Your task to perform on an android device: open app "Facebook" Image 0: 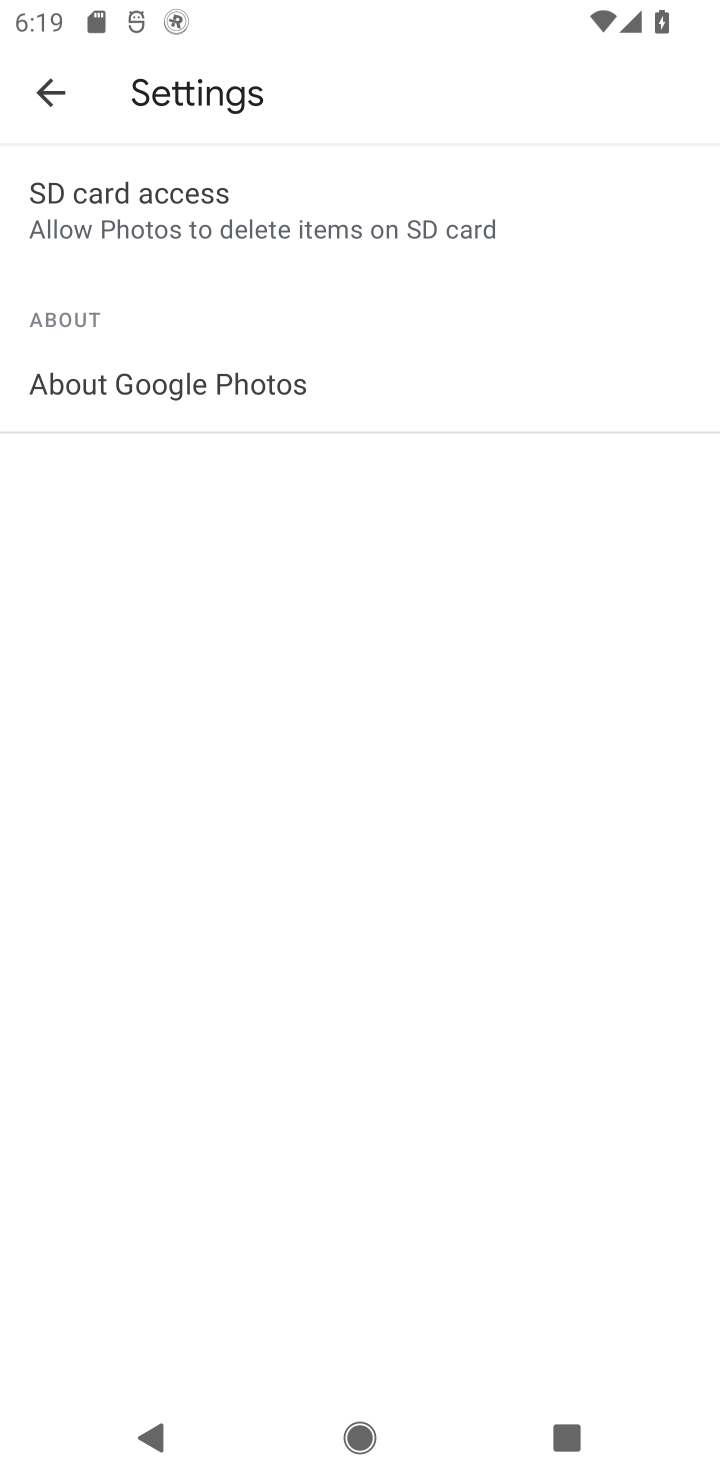
Step 0: press home button
Your task to perform on an android device: open app "Facebook" Image 1: 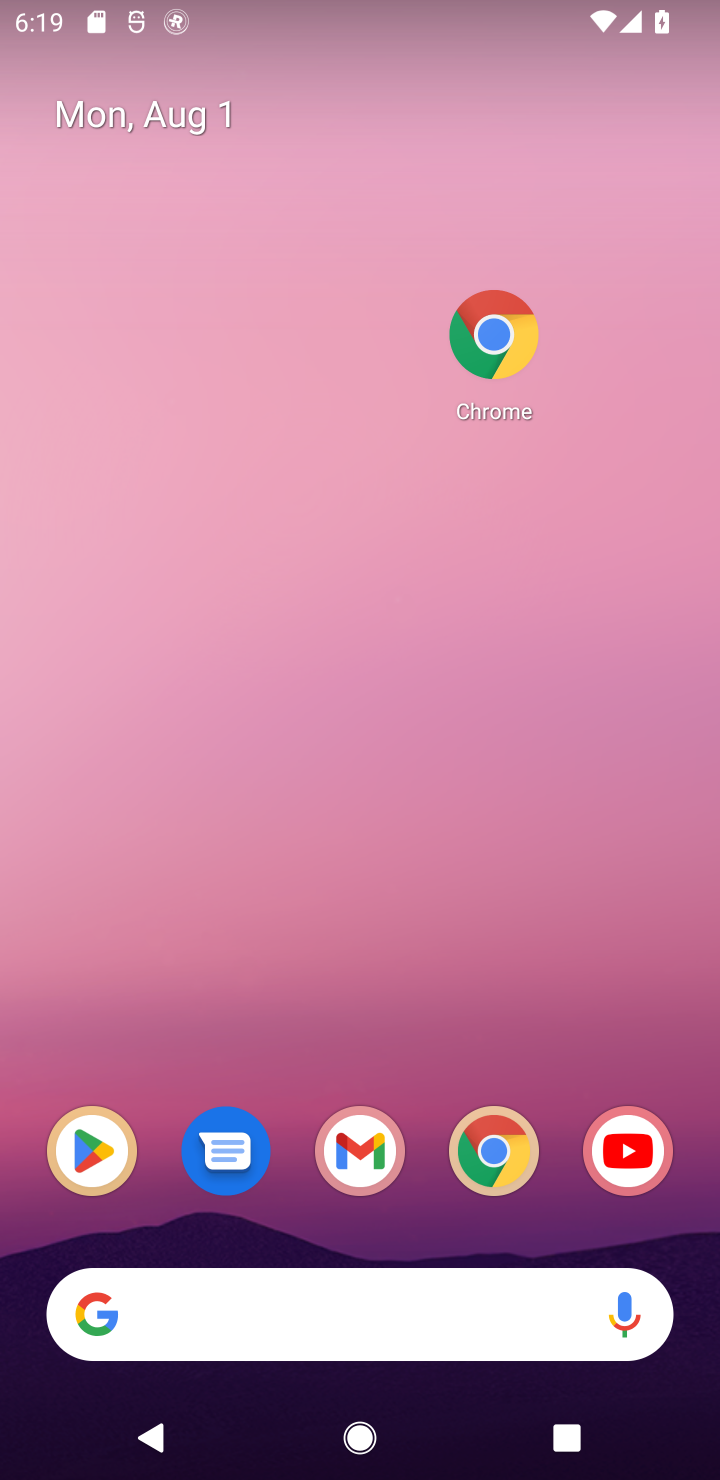
Step 1: click (88, 1153)
Your task to perform on an android device: open app "Facebook" Image 2: 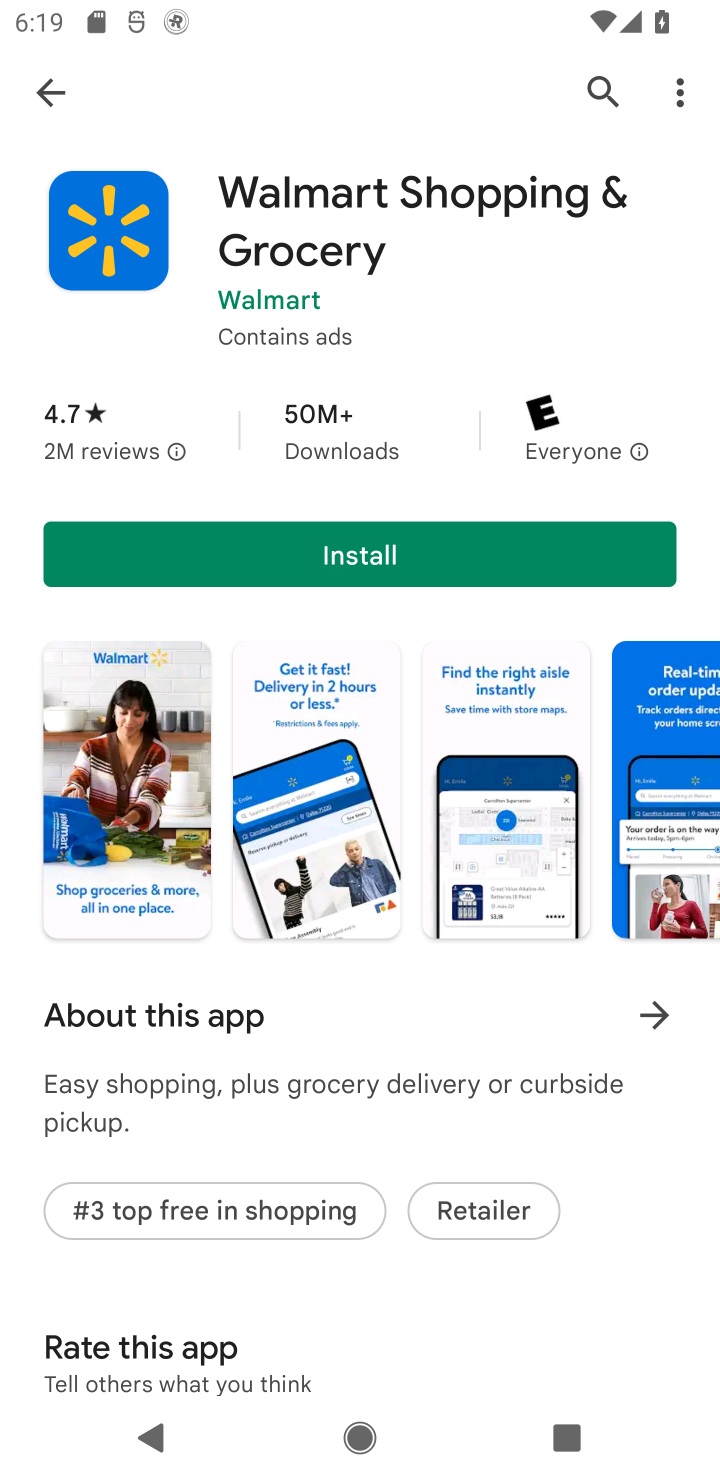
Step 2: click (595, 90)
Your task to perform on an android device: open app "Facebook" Image 3: 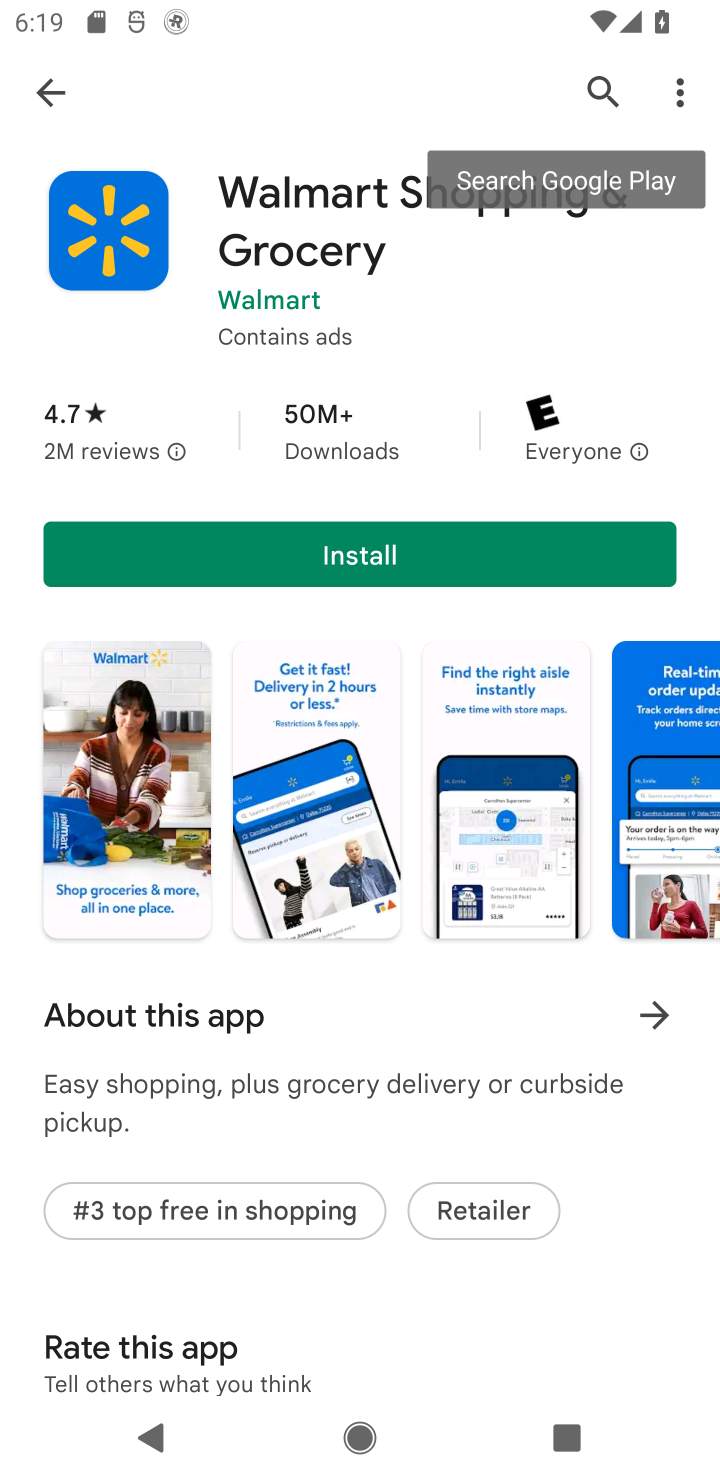
Step 3: click (595, 90)
Your task to perform on an android device: open app "Facebook" Image 4: 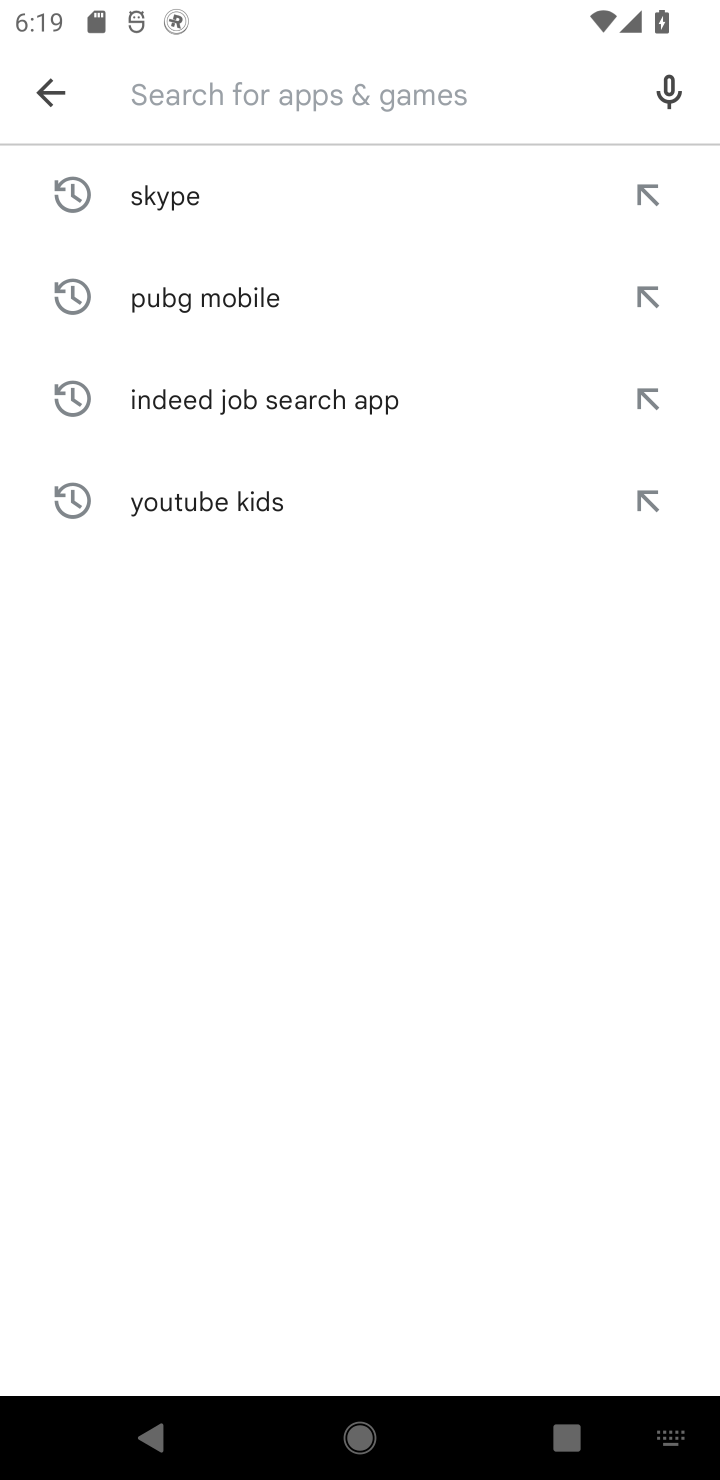
Step 4: type "Facebook"
Your task to perform on an android device: open app "Facebook" Image 5: 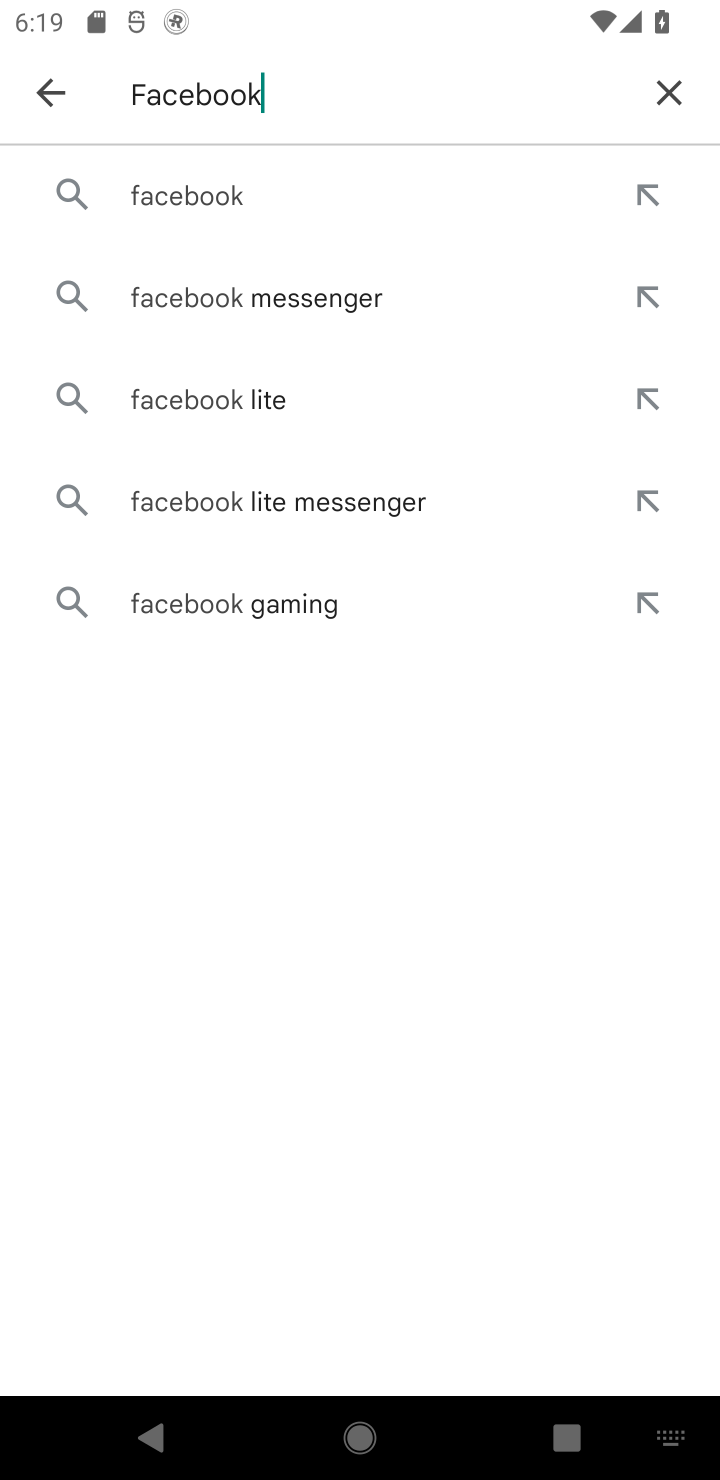
Step 5: click (234, 209)
Your task to perform on an android device: open app "Facebook" Image 6: 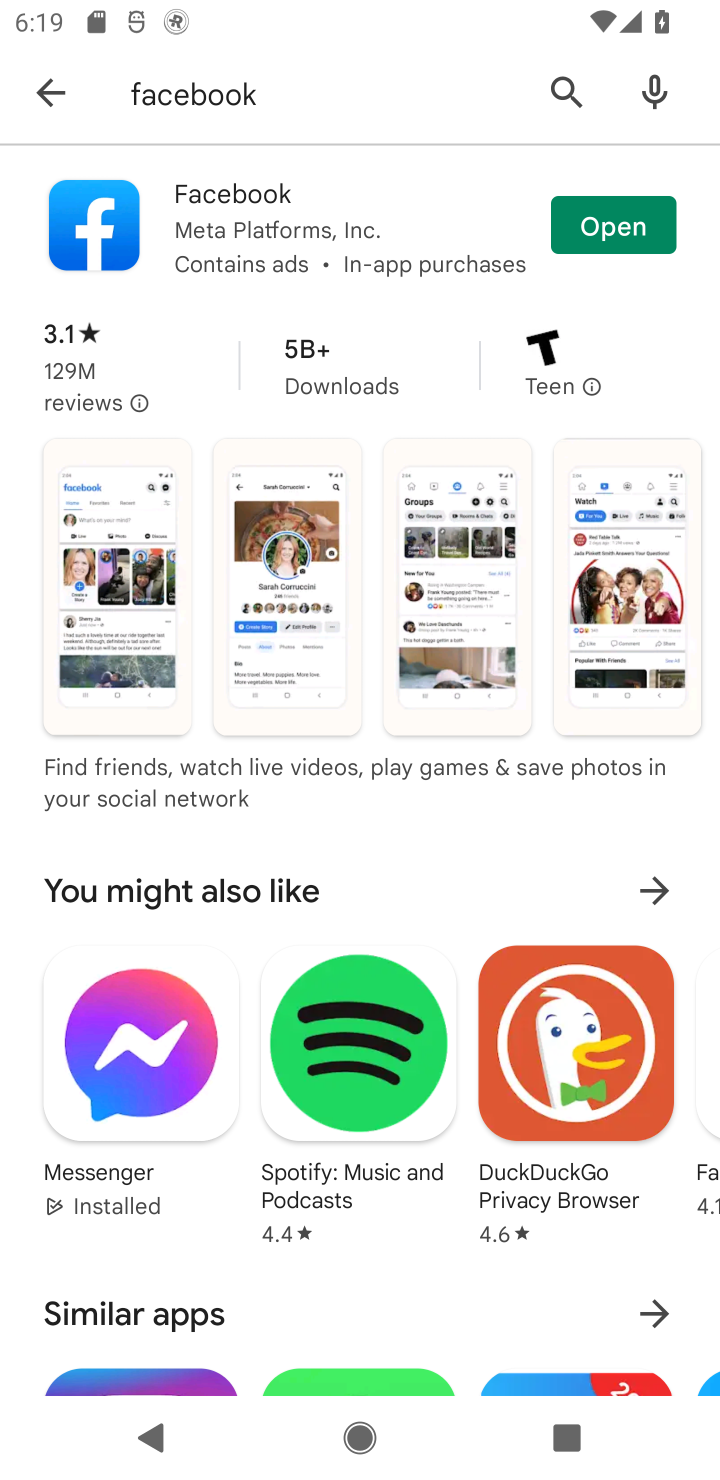
Step 6: click (588, 218)
Your task to perform on an android device: open app "Facebook" Image 7: 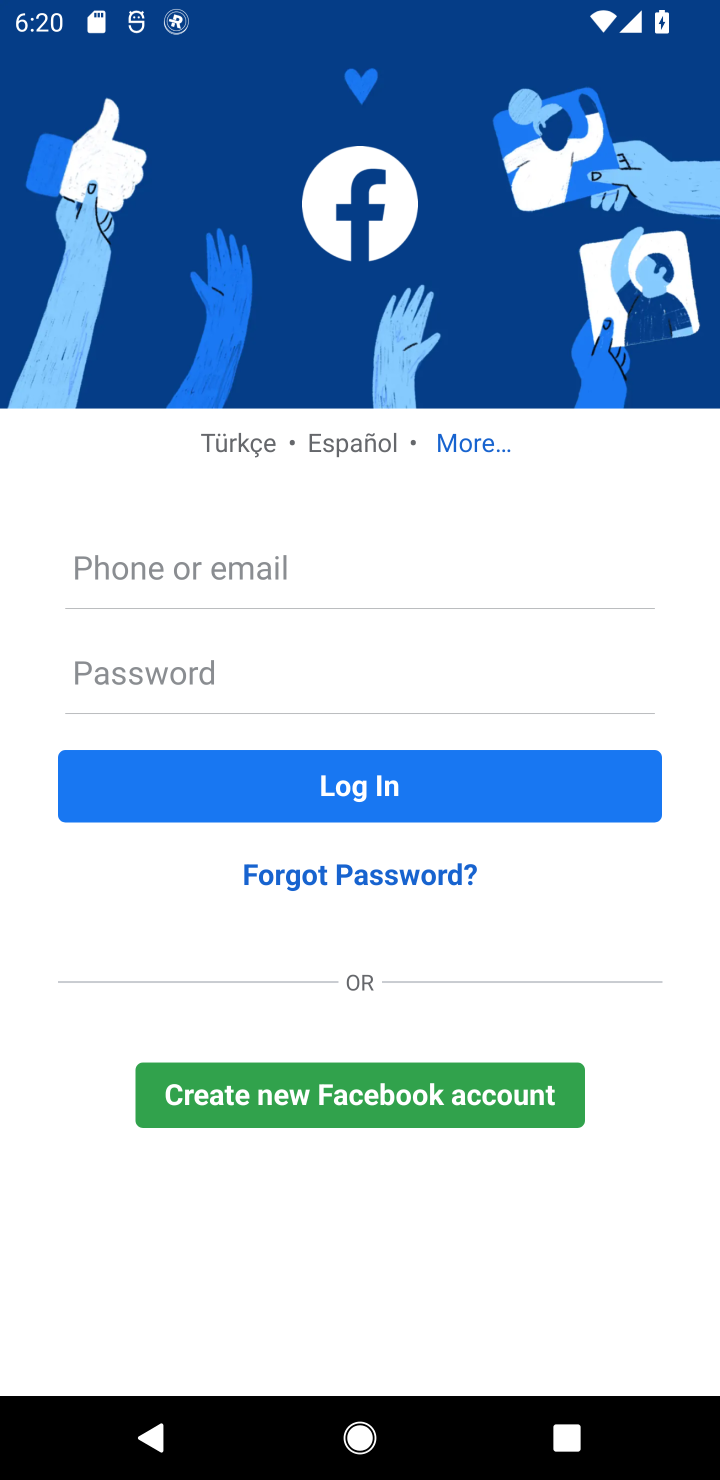
Step 7: task complete